Your task to perform on an android device: check battery use Image 0: 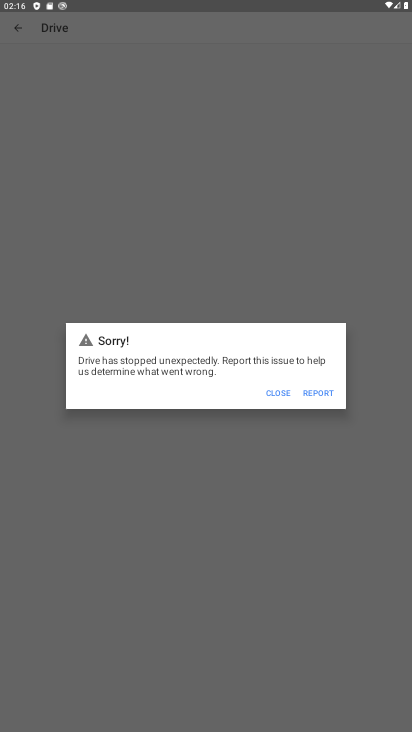
Step 0: press home button
Your task to perform on an android device: check battery use Image 1: 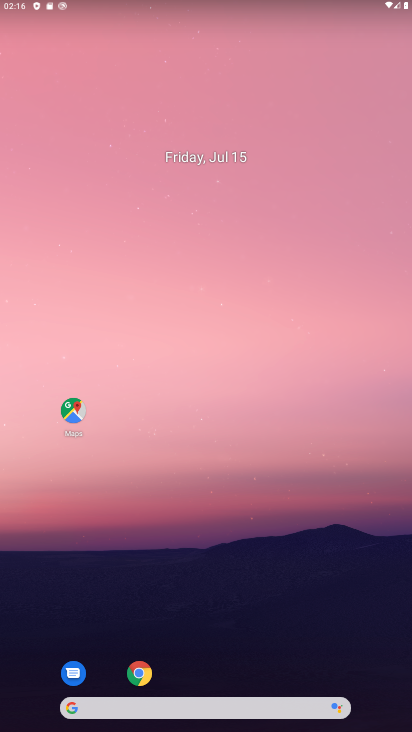
Step 1: drag from (234, 475) to (164, 3)
Your task to perform on an android device: check battery use Image 2: 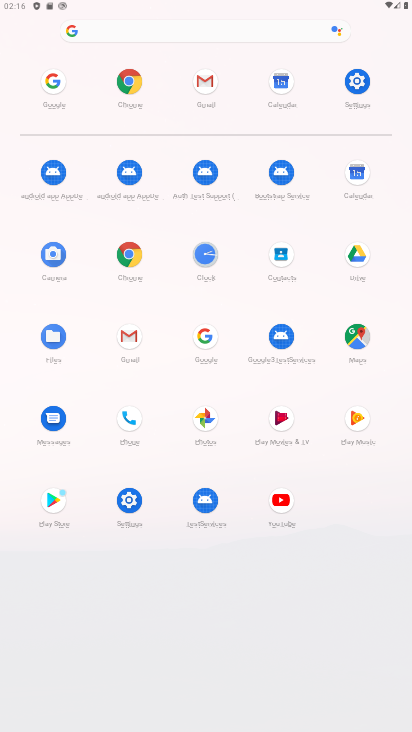
Step 2: click (355, 76)
Your task to perform on an android device: check battery use Image 3: 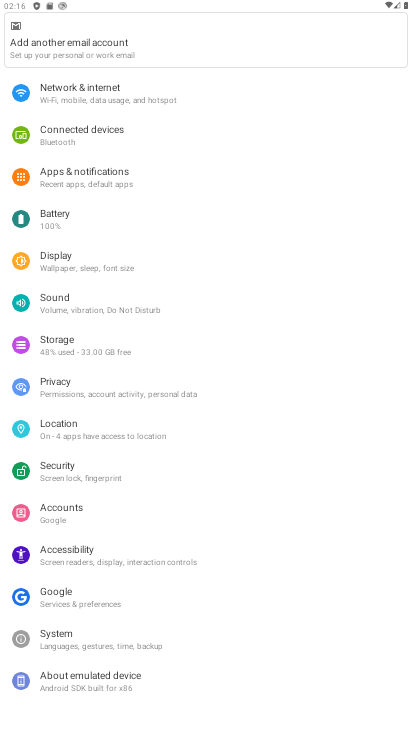
Step 3: click (69, 212)
Your task to perform on an android device: check battery use Image 4: 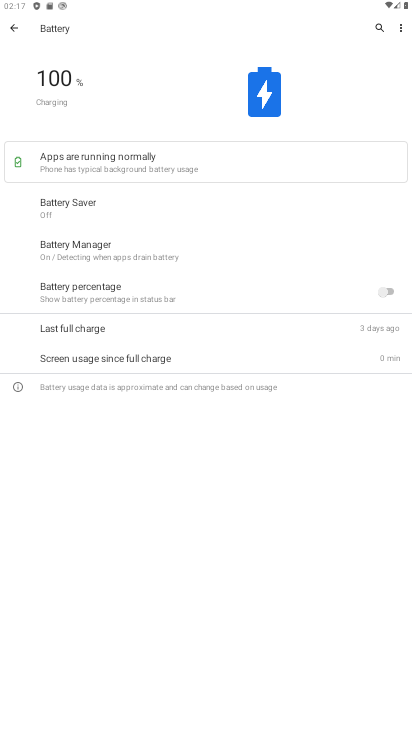
Step 4: task complete